Your task to perform on an android device: toggle priority inbox in the gmail app Image 0: 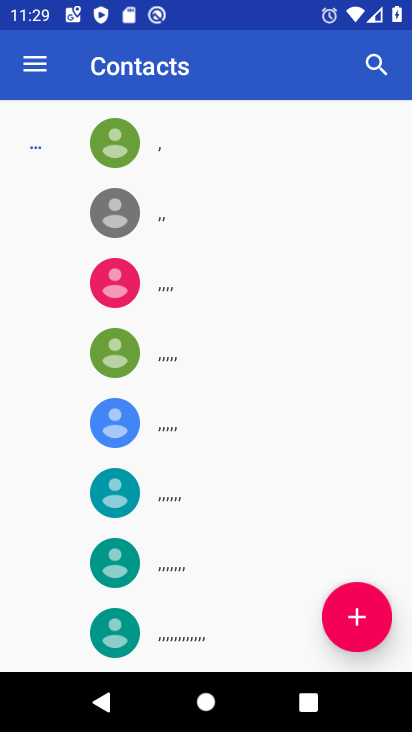
Step 0: press home button
Your task to perform on an android device: toggle priority inbox in the gmail app Image 1: 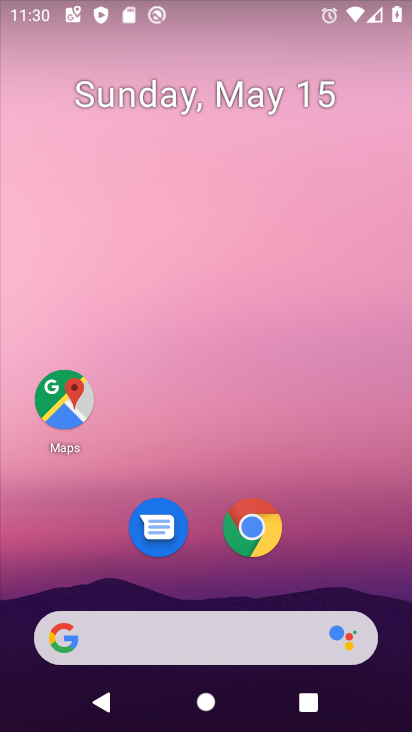
Step 1: drag from (305, 571) to (224, 137)
Your task to perform on an android device: toggle priority inbox in the gmail app Image 2: 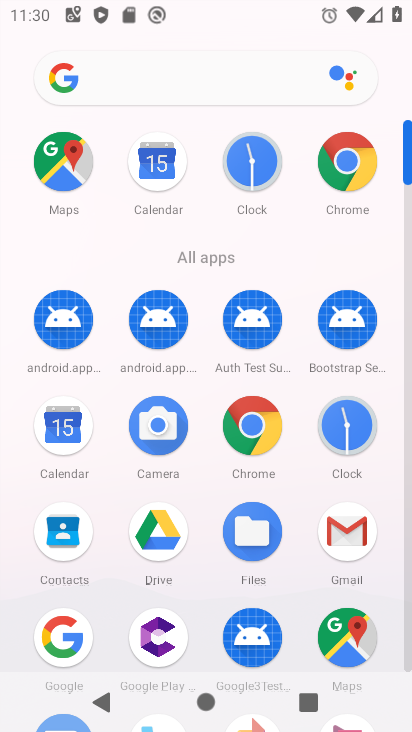
Step 2: click (349, 531)
Your task to perform on an android device: toggle priority inbox in the gmail app Image 3: 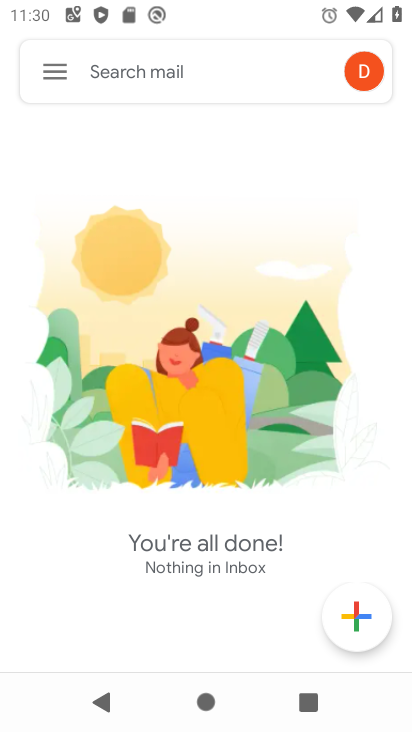
Step 3: click (62, 81)
Your task to perform on an android device: toggle priority inbox in the gmail app Image 4: 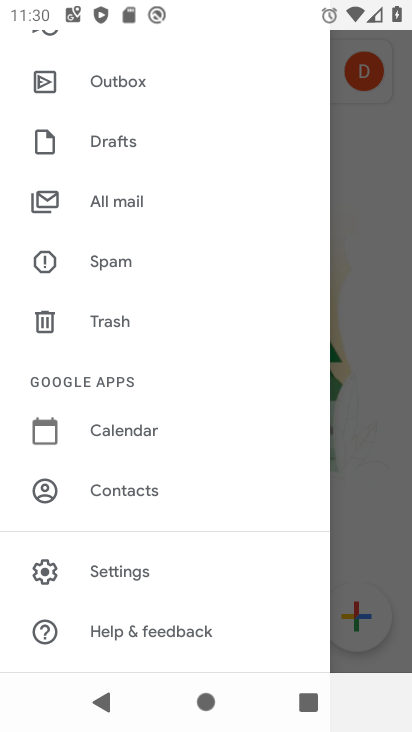
Step 4: click (166, 564)
Your task to perform on an android device: toggle priority inbox in the gmail app Image 5: 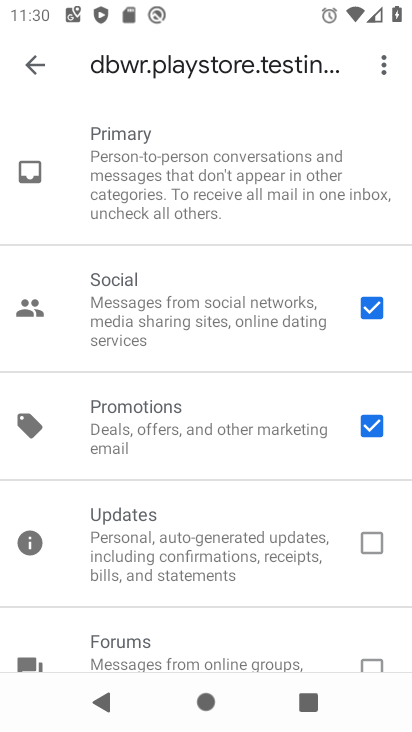
Step 5: drag from (140, 273) to (149, 420)
Your task to perform on an android device: toggle priority inbox in the gmail app Image 6: 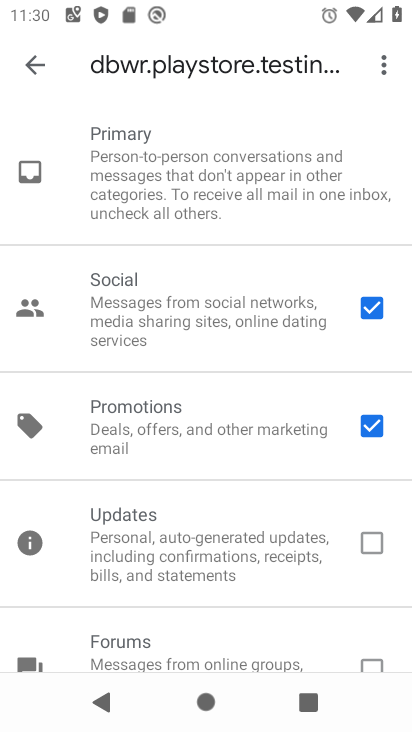
Step 6: drag from (122, 289) to (124, 397)
Your task to perform on an android device: toggle priority inbox in the gmail app Image 7: 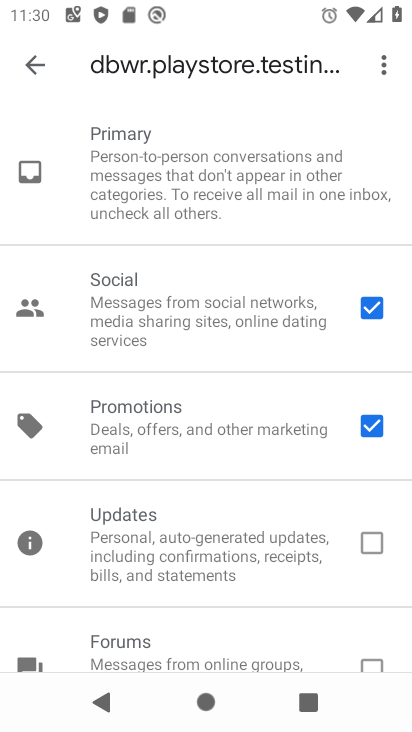
Step 7: drag from (122, 441) to (101, 226)
Your task to perform on an android device: toggle priority inbox in the gmail app Image 8: 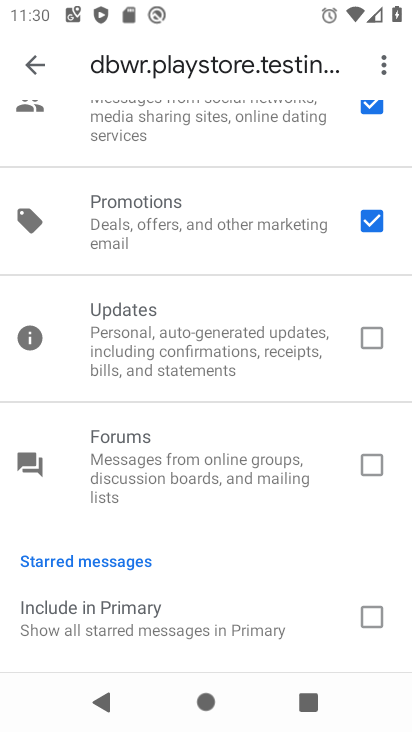
Step 8: drag from (113, 286) to (194, 687)
Your task to perform on an android device: toggle priority inbox in the gmail app Image 9: 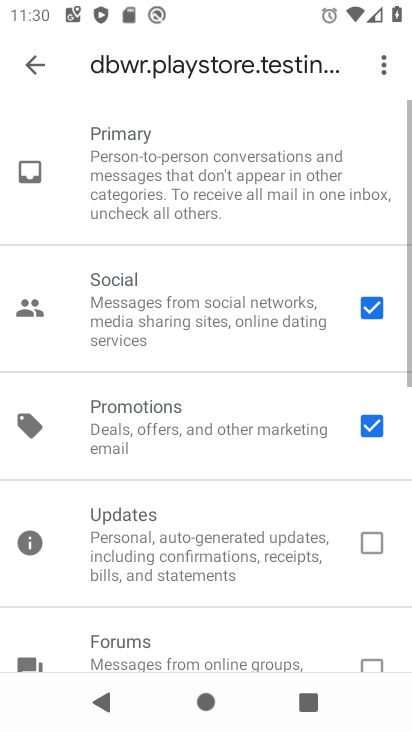
Step 9: drag from (174, 195) to (166, 450)
Your task to perform on an android device: toggle priority inbox in the gmail app Image 10: 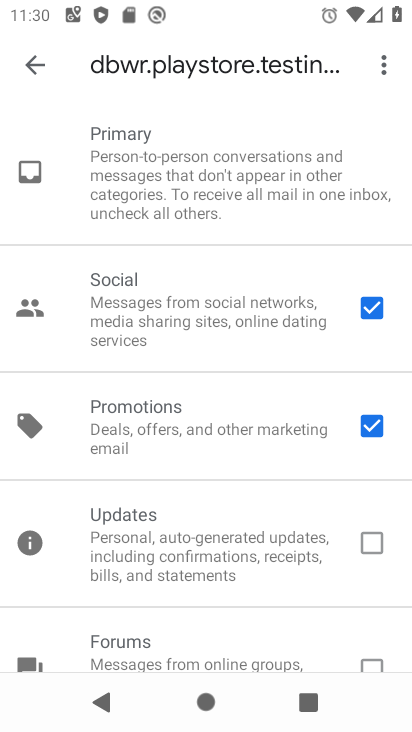
Step 10: click (42, 64)
Your task to perform on an android device: toggle priority inbox in the gmail app Image 11: 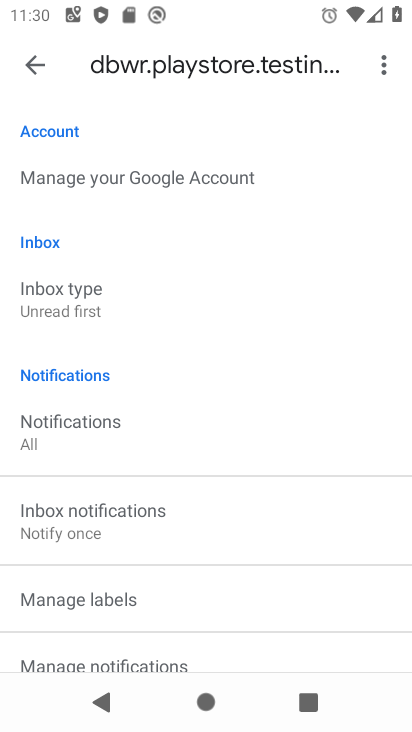
Step 11: click (113, 286)
Your task to perform on an android device: toggle priority inbox in the gmail app Image 12: 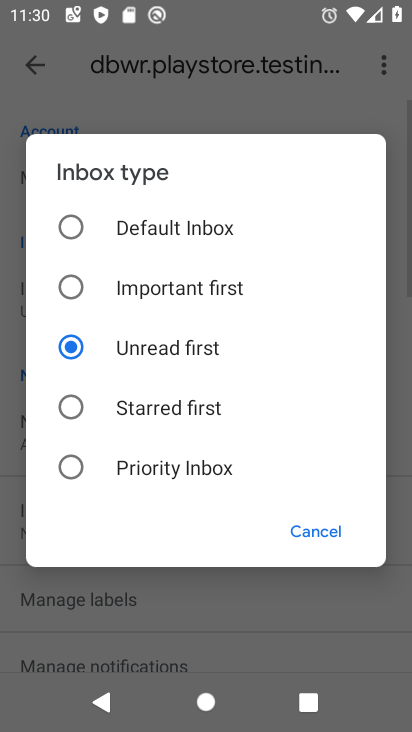
Step 12: click (163, 460)
Your task to perform on an android device: toggle priority inbox in the gmail app Image 13: 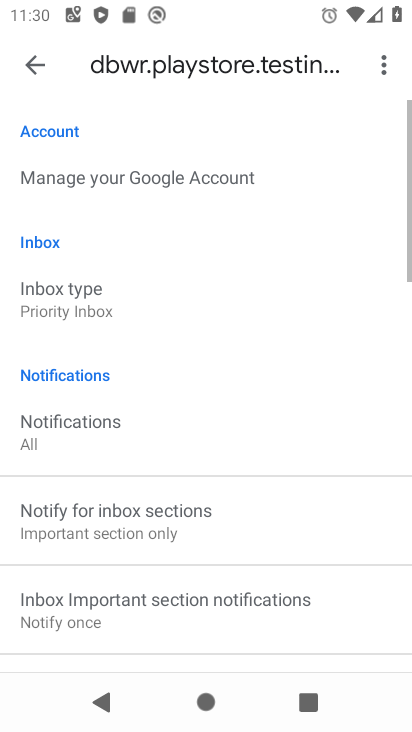
Step 13: task complete